Your task to perform on an android device: turn off airplane mode Image 0: 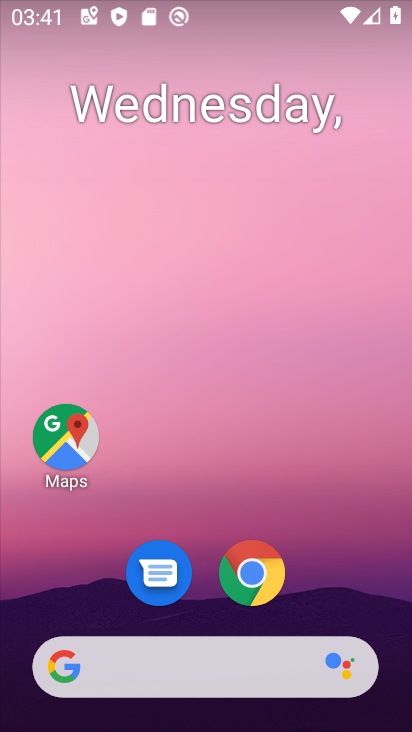
Step 0: drag from (336, 598) to (236, 52)
Your task to perform on an android device: turn off airplane mode Image 1: 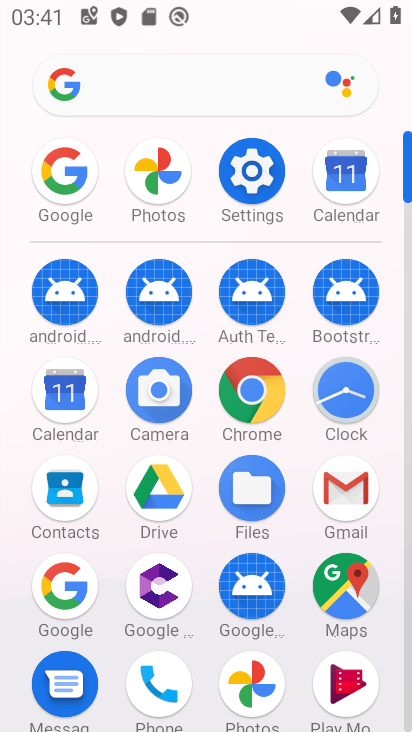
Step 1: click (251, 172)
Your task to perform on an android device: turn off airplane mode Image 2: 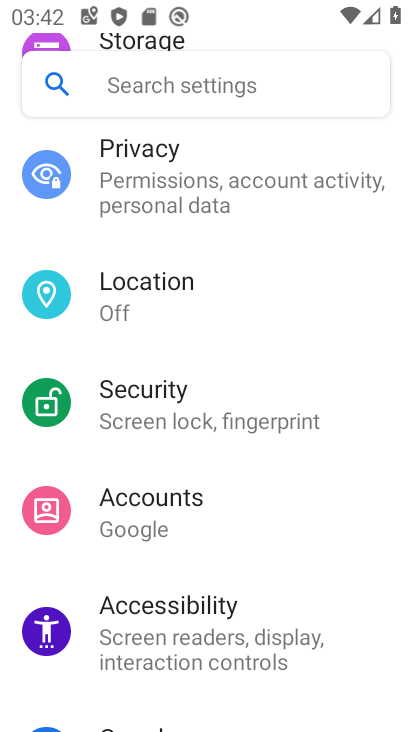
Step 2: drag from (277, 288) to (295, 547)
Your task to perform on an android device: turn off airplane mode Image 3: 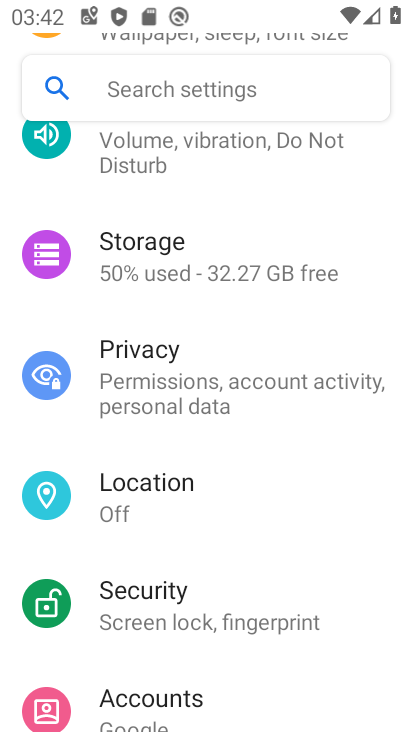
Step 3: drag from (224, 181) to (279, 520)
Your task to perform on an android device: turn off airplane mode Image 4: 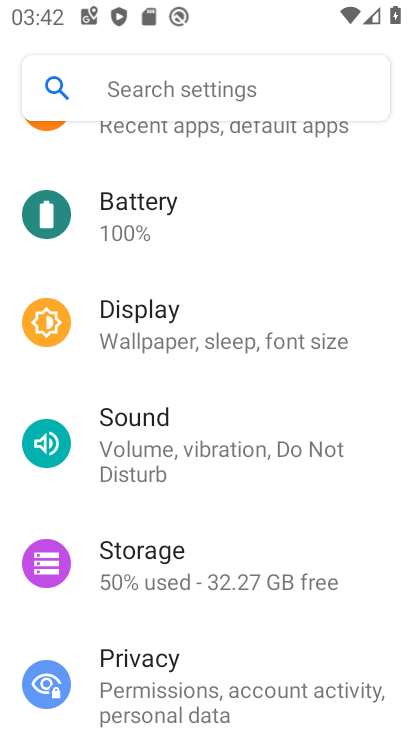
Step 4: drag from (243, 258) to (297, 580)
Your task to perform on an android device: turn off airplane mode Image 5: 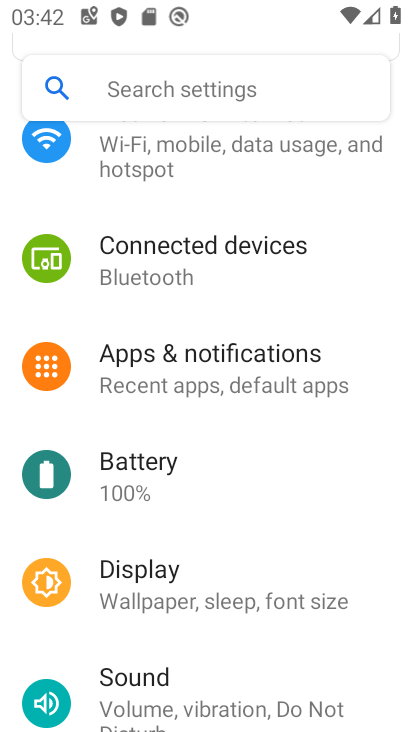
Step 5: drag from (237, 235) to (268, 556)
Your task to perform on an android device: turn off airplane mode Image 6: 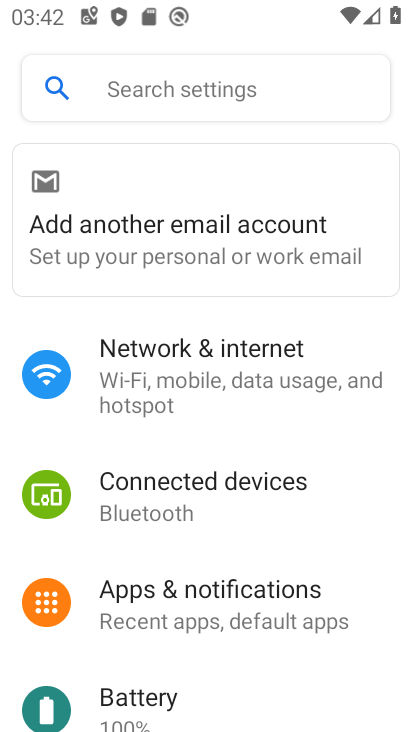
Step 6: click (217, 340)
Your task to perform on an android device: turn off airplane mode Image 7: 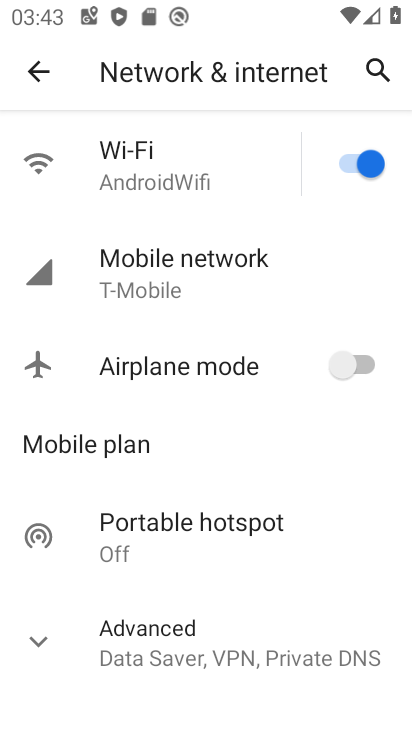
Step 7: task complete